Your task to perform on an android device: turn off translation in the chrome app Image 0: 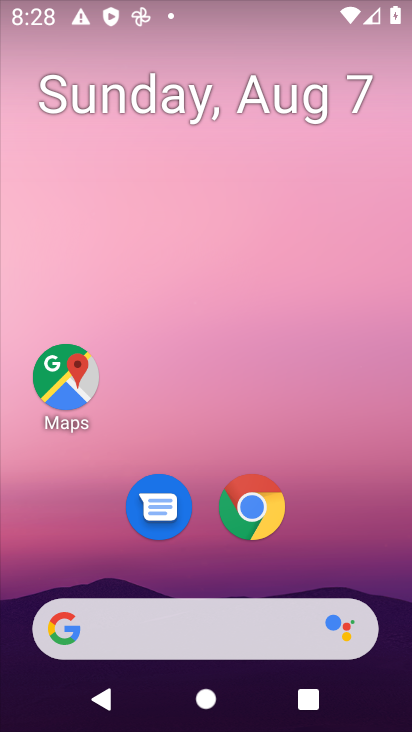
Step 0: click (259, 515)
Your task to perform on an android device: turn off translation in the chrome app Image 1: 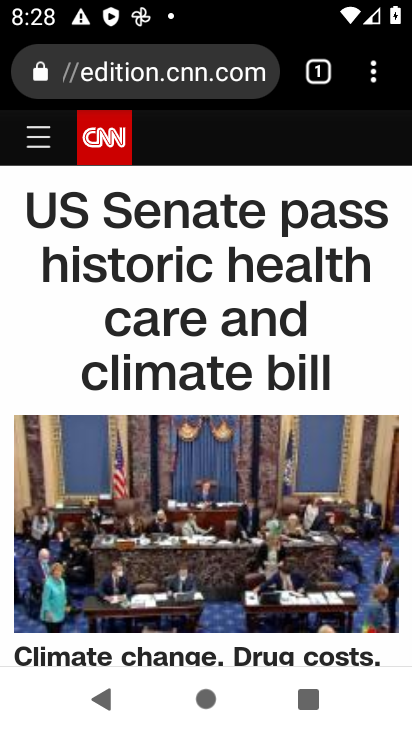
Step 1: drag from (378, 76) to (227, 499)
Your task to perform on an android device: turn off translation in the chrome app Image 2: 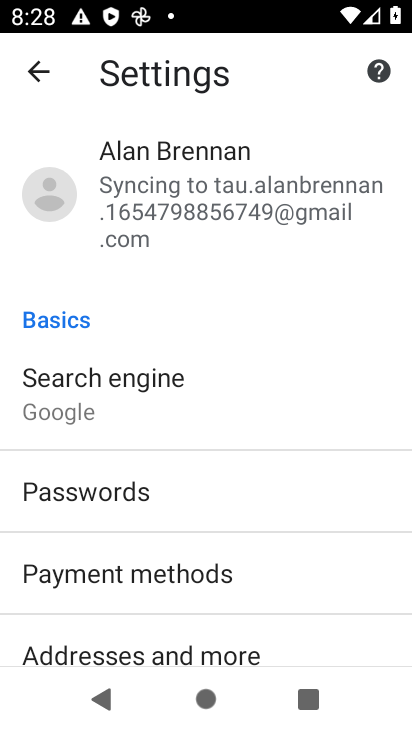
Step 2: drag from (261, 633) to (348, 217)
Your task to perform on an android device: turn off translation in the chrome app Image 3: 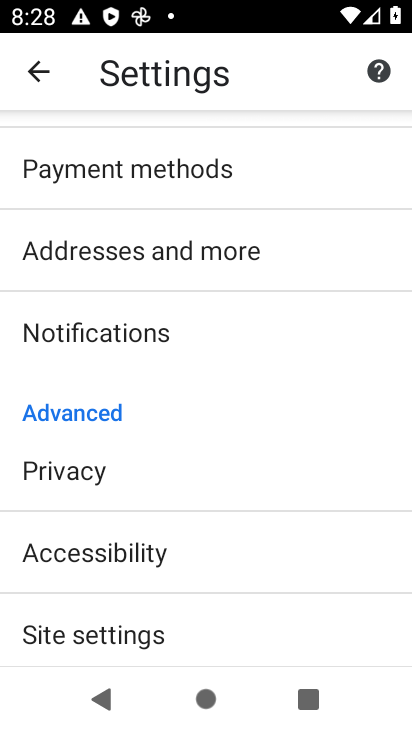
Step 3: drag from (220, 631) to (313, 288)
Your task to perform on an android device: turn off translation in the chrome app Image 4: 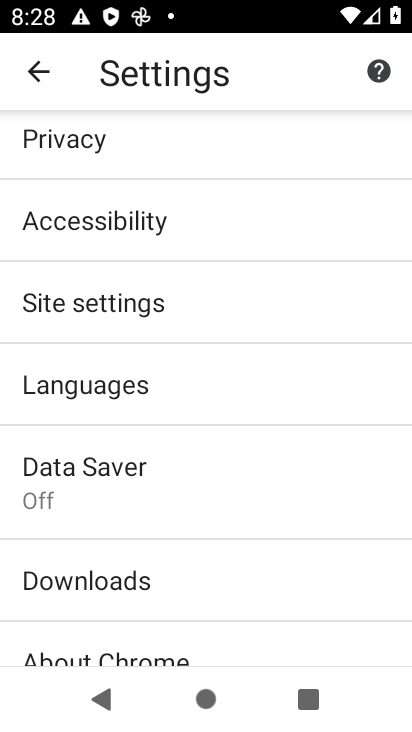
Step 4: click (129, 381)
Your task to perform on an android device: turn off translation in the chrome app Image 5: 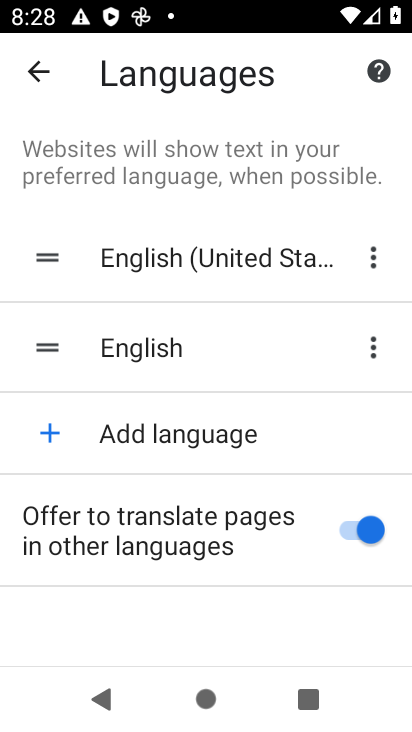
Step 5: click (362, 529)
Your task to perform on an android device: turn off translation in the chrome app Image 6: 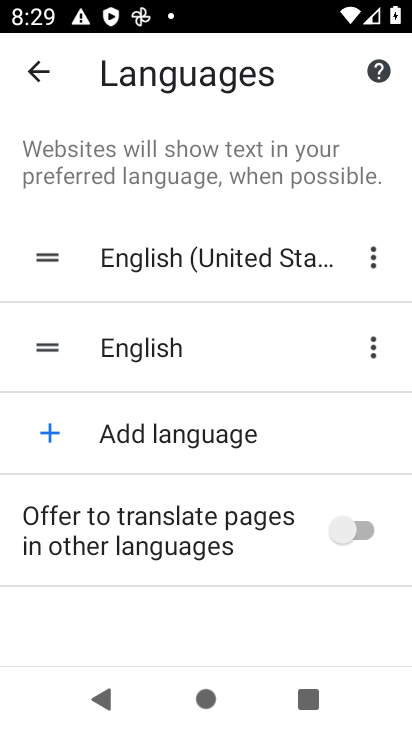
Step 6: task complete